Your task to perform on an android device: add a contact in the contacts app Image 0: 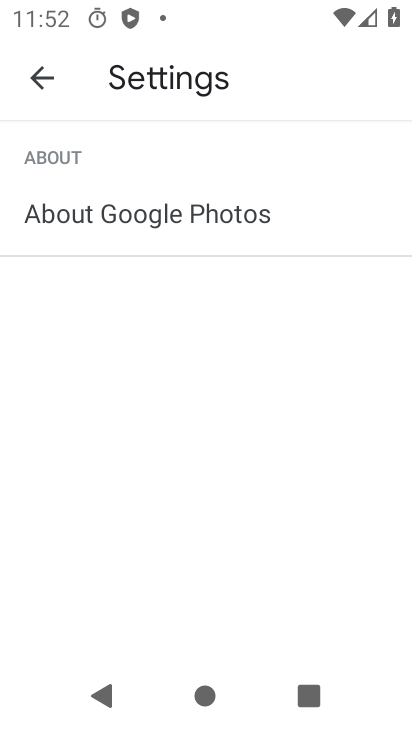
Step 0: press back button
Your task to perform on an android device: add a contact in the contacts app Image 1: 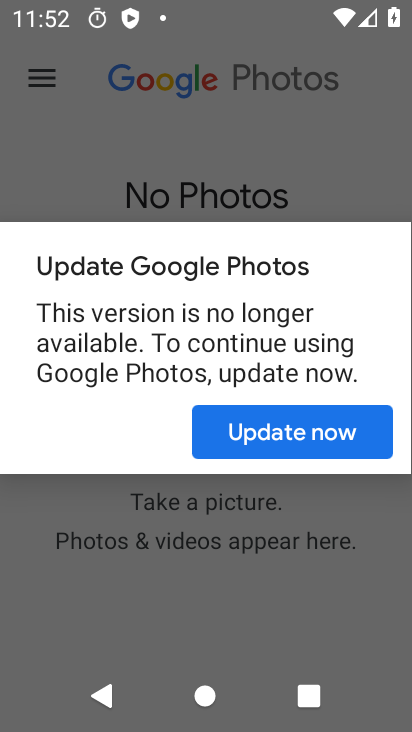
Step 1: press home button
Your task to perform on an android device: add a contact in the contacts app Image 2: 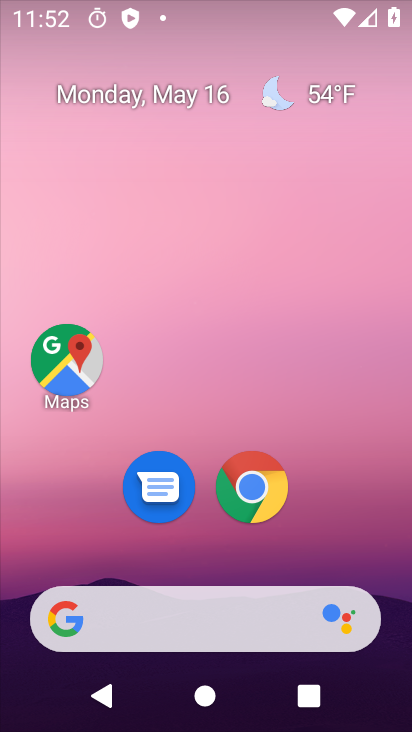
Step 2: drag from (181, 540) to (240, 28)
Your task to perform on an android device: add a contact in the contacts app Image 3: 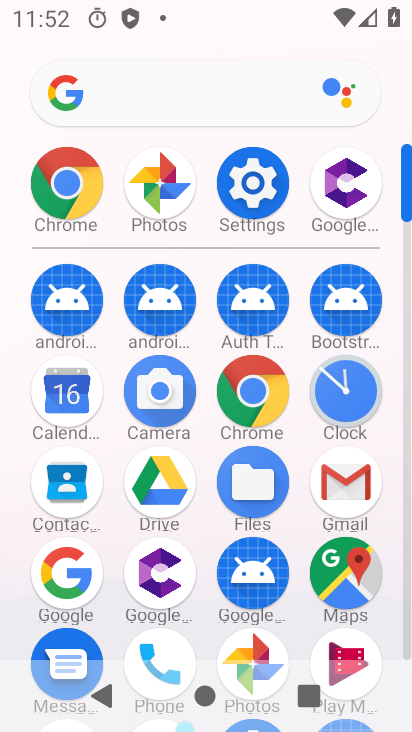
Step 3: click (62, 478)
Your task to perform on an android device: add a contact in the contacts app Image 4: 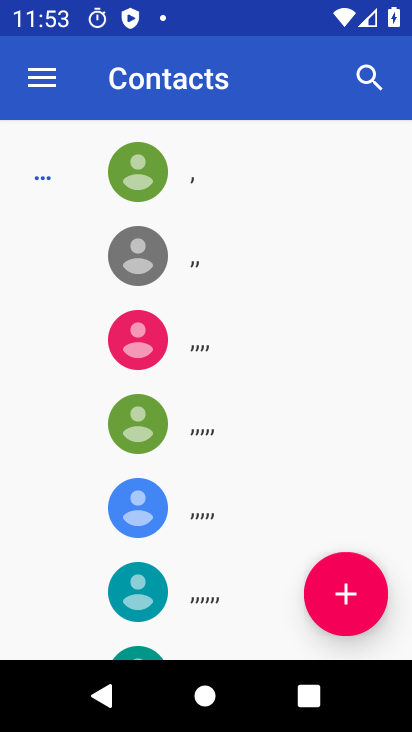
Step 4: click (355, 591)
Your task to perform on an android device: add a contact in the contacts app Image 5: 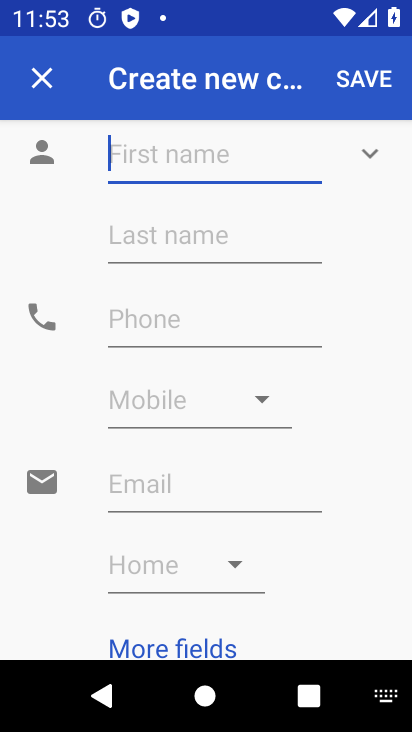
Step 5: click (142, 157)
Your task to perform on an android device: add a contact in the contacts app Image 6: 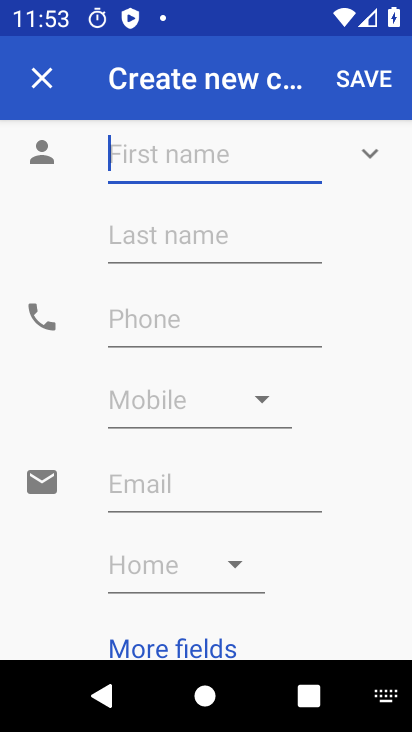
Step 6: type "hvhv"
Your task to perform on an android device: add a contact in the contacts app Image 7: 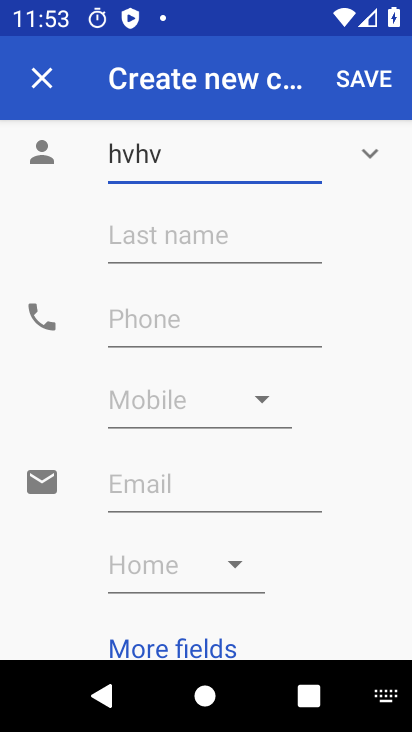
Step 7: click (136, 313)
Your task to perform on an android device: add a contact in the contacts app Image 8: 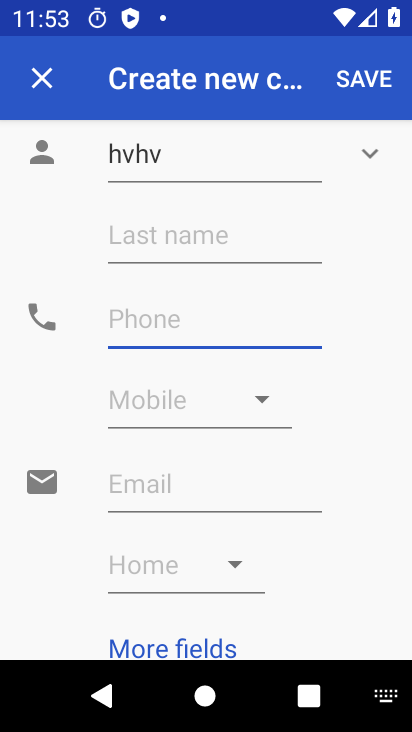
Step 8: type "87878"
Your task to perform on an android device: add a contact in the contacts app Image 9: 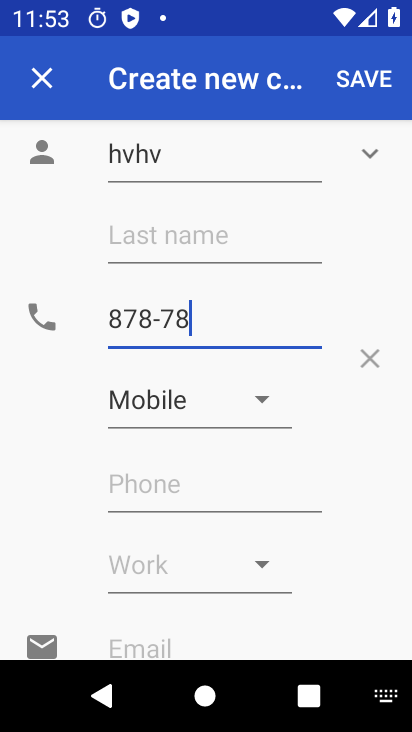
Step 9: click (359, 79)
Your task to perform on an android device: add a contact in the contacts app Image 10: 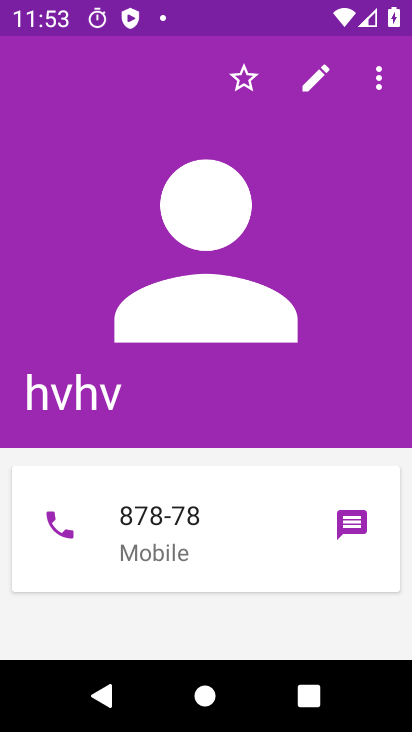
Step 10: task complete